Your task to perform on an android device: turn off airplane mode Image 0: 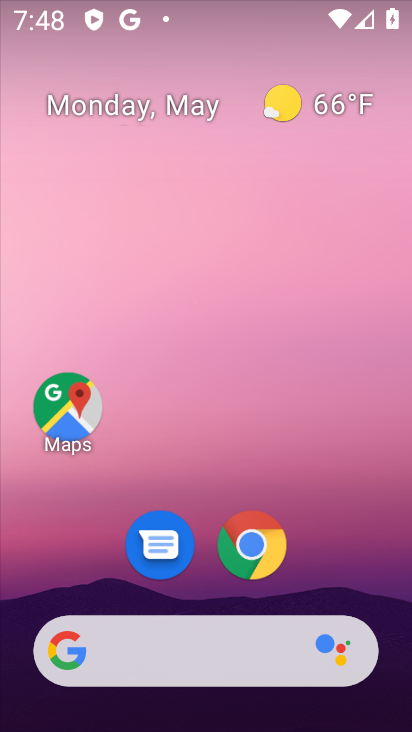
Step 0: drag from (199, 624) to (93, 38)
Your task to perform on an android device: turn off airplane mode Image 1: 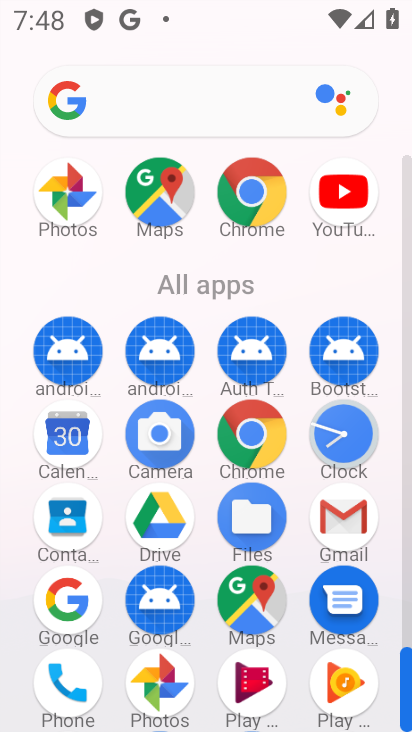
Step 1: drag from (200, 636) to (185, 66)
Your task to perform on an android device: turn off airplane mode Image 2: 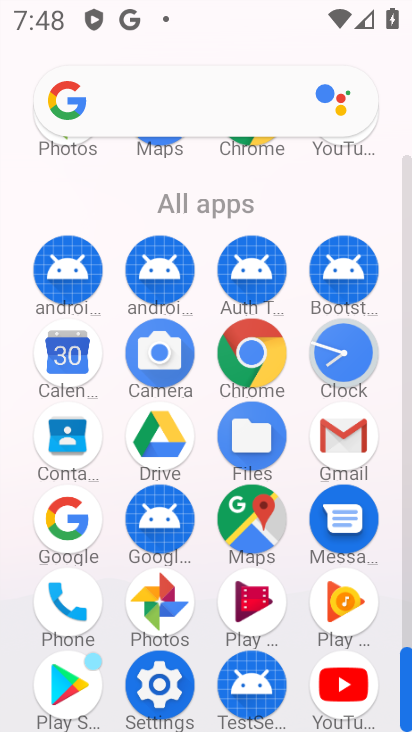
Step 2: click (162, 688)
Your task to perform on an android device: turn off airplane mode Image 3: 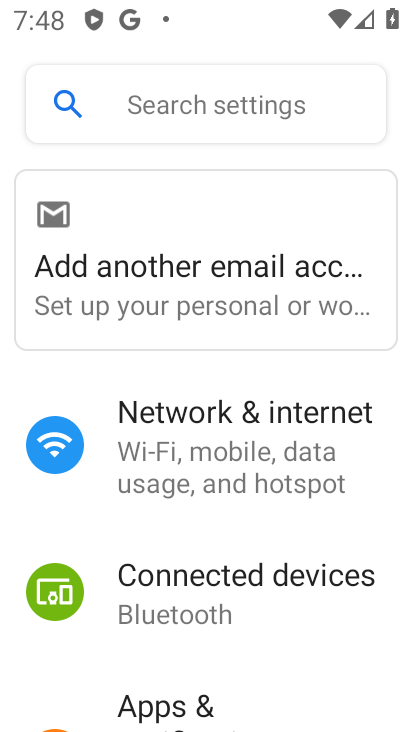
Step 3: click (207, 466)
Your task to perform on an android device: turn off airplane mode Image 4: 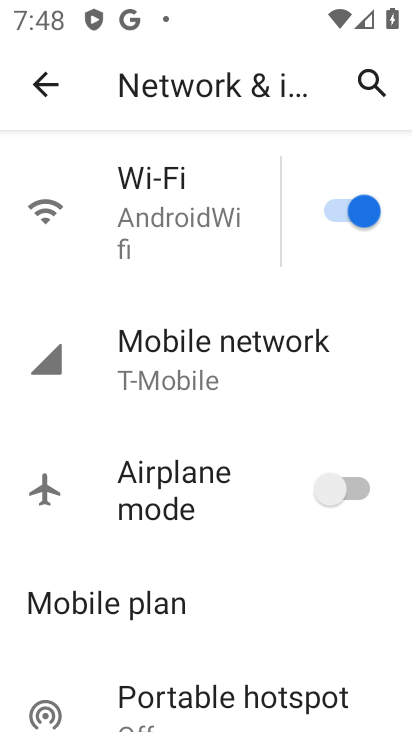
Step 4: task complete